Your task to perform on an android device: Open accessibility settings Image 0: 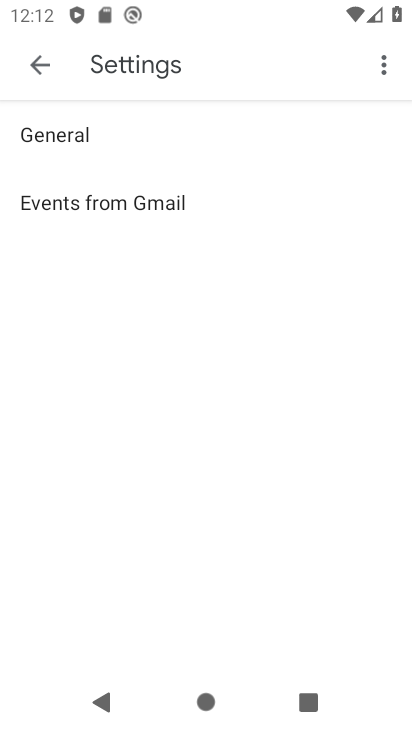
Step 0: press home button
Your task to perform on an android device: Open accessibility settings Image 1: 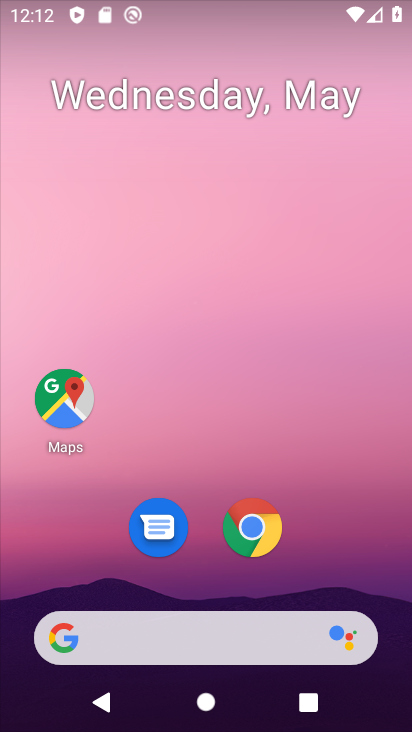
Step 1: drag from (336, 549) to (303, 42)
Your task to perform on an android device: Open accessibility settings Image 2: 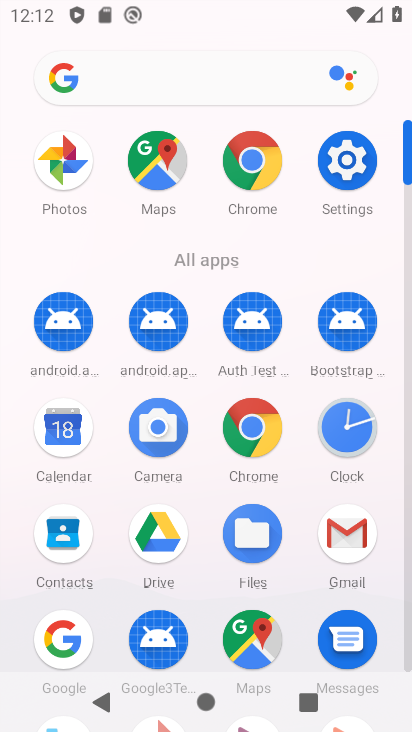
Step 2: click (348, 164)
Your task to perform on an android device: Open accessibility settings Image 3: 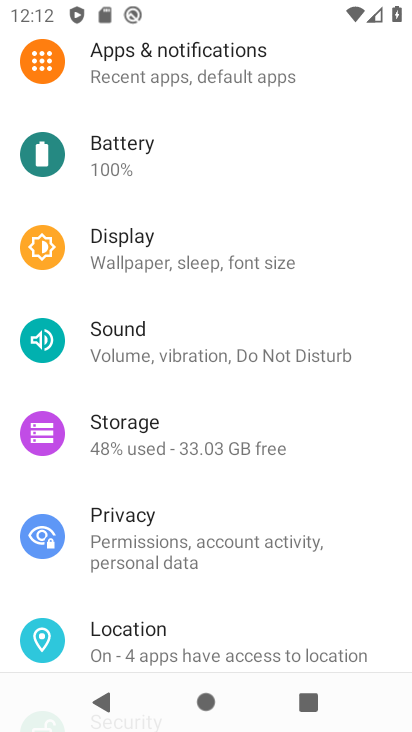
Step 3: drag from (228, 563) to (185, 67)
Your task to perform on an android device: Open accessibility settings Image 4: 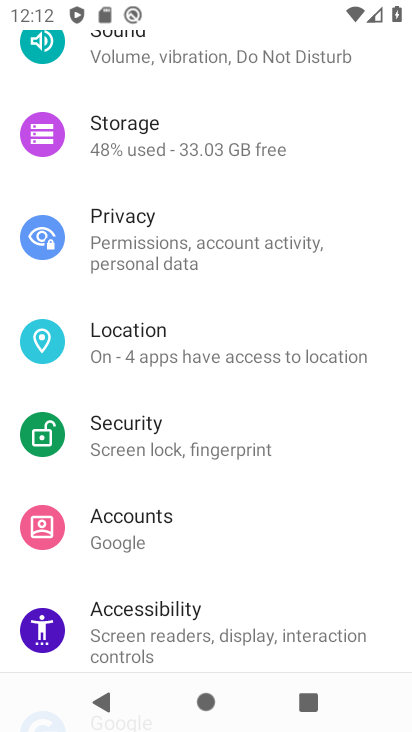
Step 4: click (216, 601)
Your task to perform on an android device: Open accessibility settings Image 5: 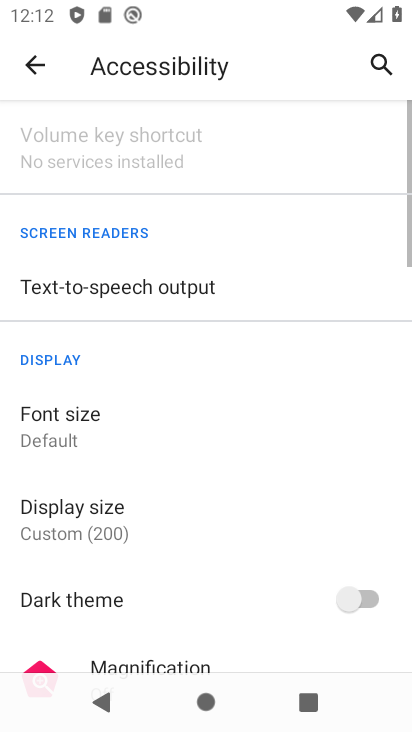
Step 5: task complete